Your task to perform on an android device: Is it going to rain today? Image 0: 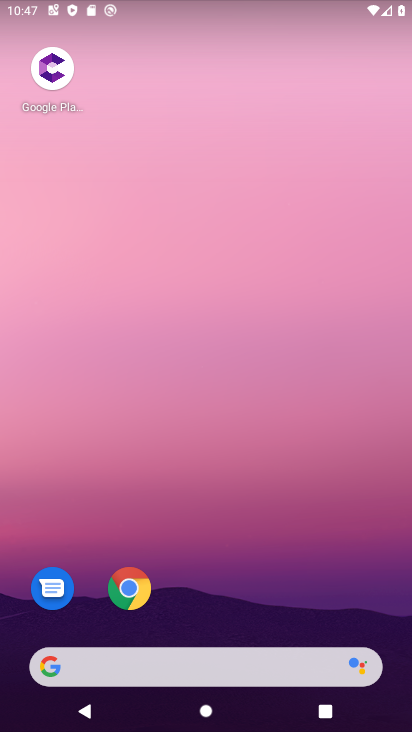
Step 0: drag from (255, 580) to (353, 126)
Your task to perform on an android device: Is it going to rain today? Image 1: 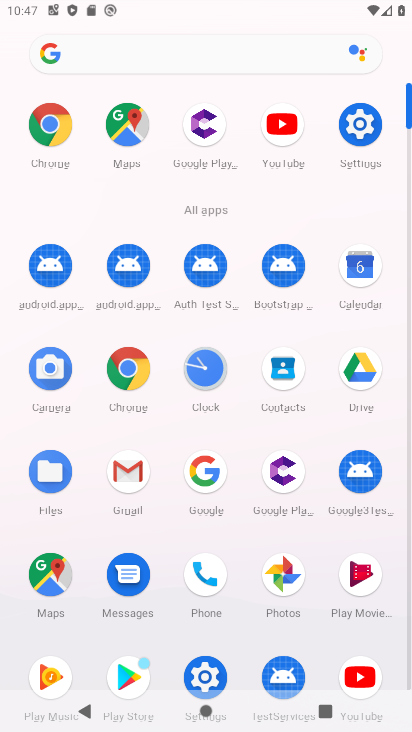
Step 1: click (130, 363)
Your task to perform on an android device: Is it going to rain today? Image 2: 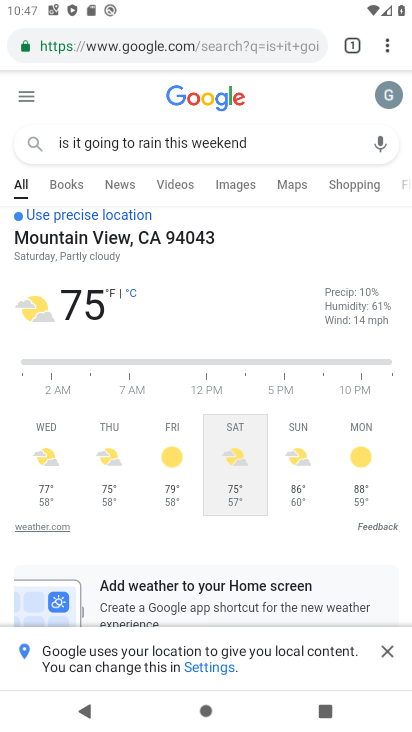
Step 2: click (265, 47)
Your task to perform on an android device: Is it going to rain today? Image 3: 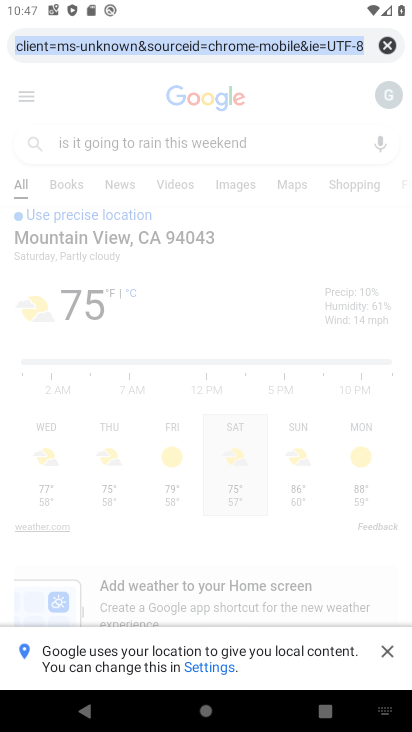
Step 3: click (384, 48)
Your task to perform on an android device: Is it going to rain today? Image 4: 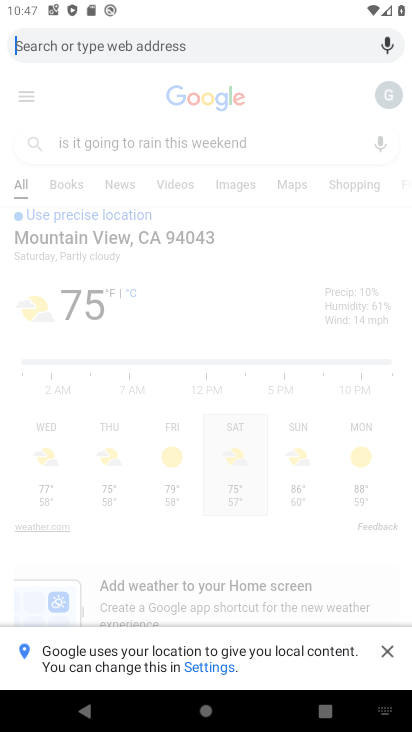
Step 4: type "is it going to rain today ?"
Your task to perform on an android device: Is it going to rain today? Image 5: 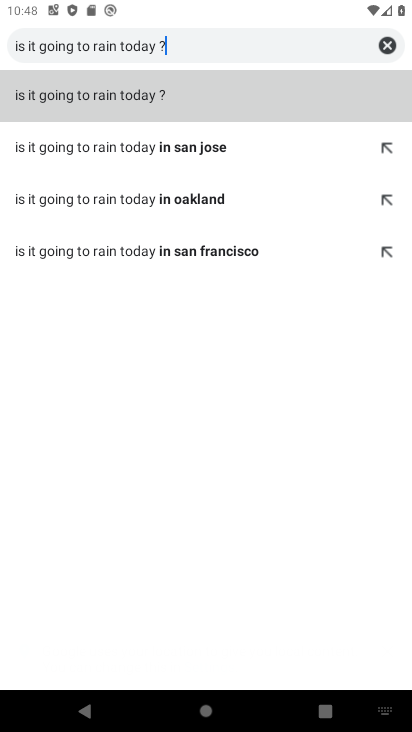
Step 5: click (219, 96)
Your task to perform on an android device: Is it going to rain today? Image 6: 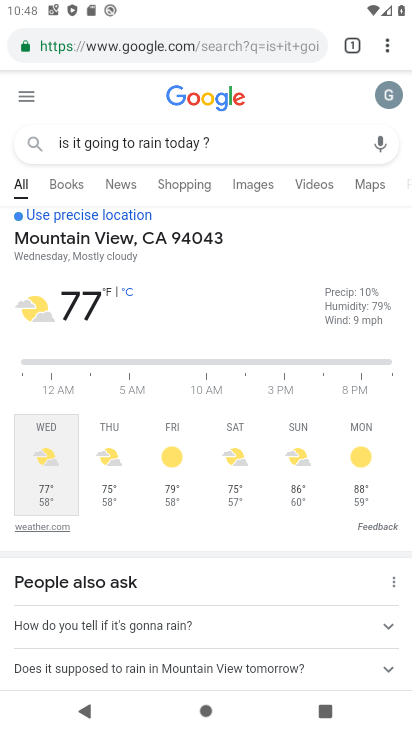
Step 6: task complete